Your task to perform on an android device: Open the map Image 0: 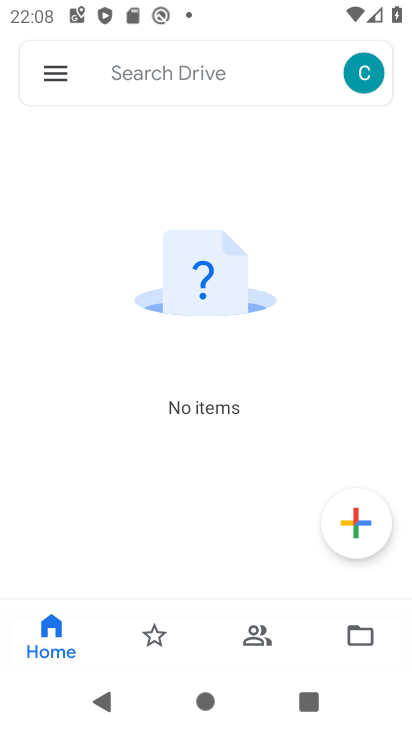
Step 0: press home button
Your task to perform on an android device: Open the map Image 1: 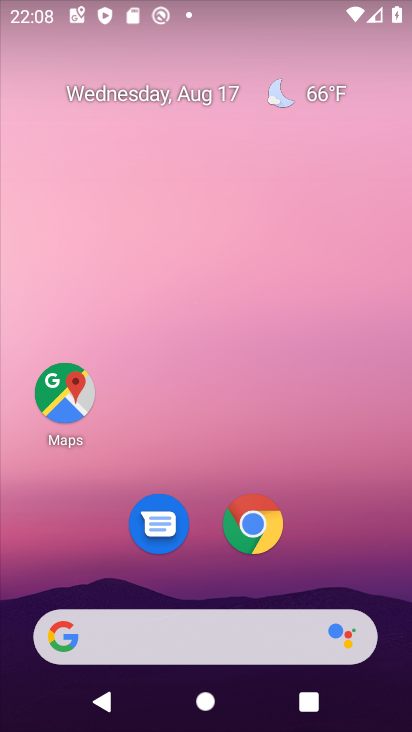
Step 1: click (68, 390)
Your task to perform on an android device: Open the map Image 2: 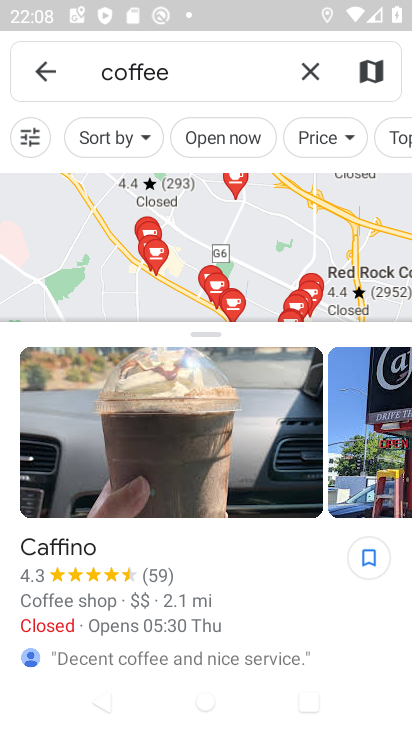
Step 2: click (47, 69)
Your task to perform on an android device: Open the map Image 3: 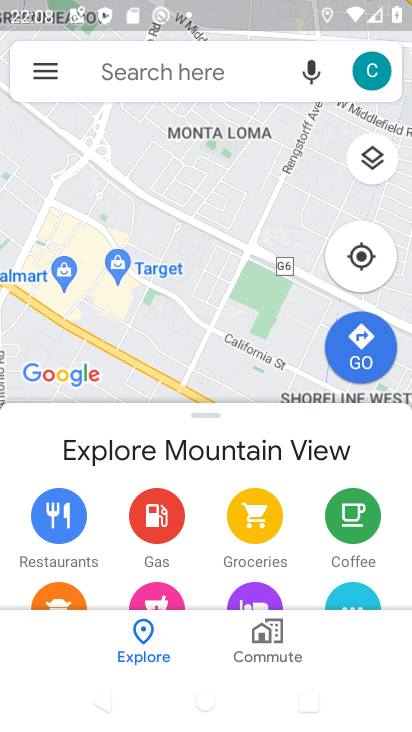
Step 3: task complete